Your task to perform on an android device: check android version Image 0: 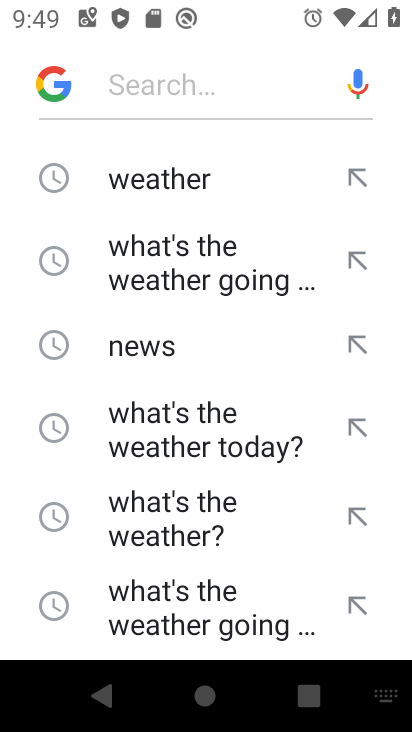
Step 0: press home button
Your task to perform on an android device: check android version Image 1: 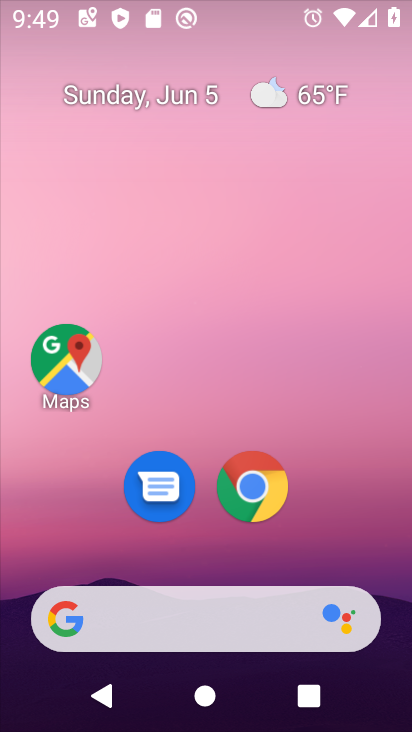
Step 1: drag from (311, 544) to (311, 209)
Your task to perform on an android device: check android version Image 2: 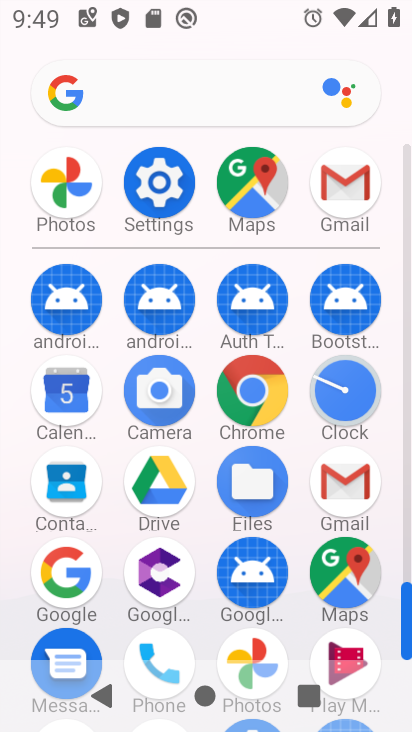
Step 2: click (172, 190)
Your task to perform on an android device: check android version Image 3: 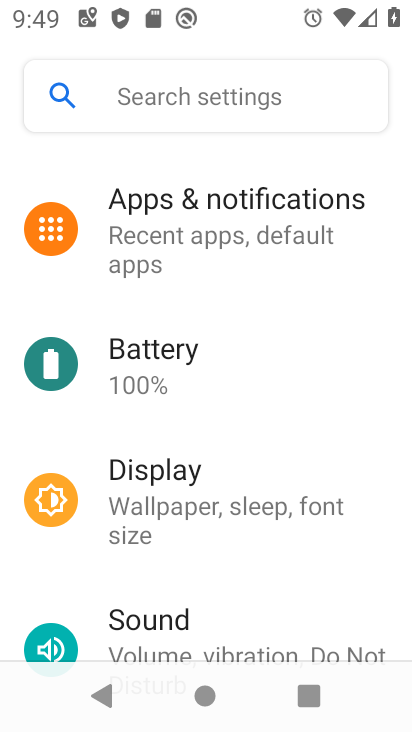
Step 3: drag from (305, 613) to (316, 118)
Your task to perform on an android device: check android version Image 4: 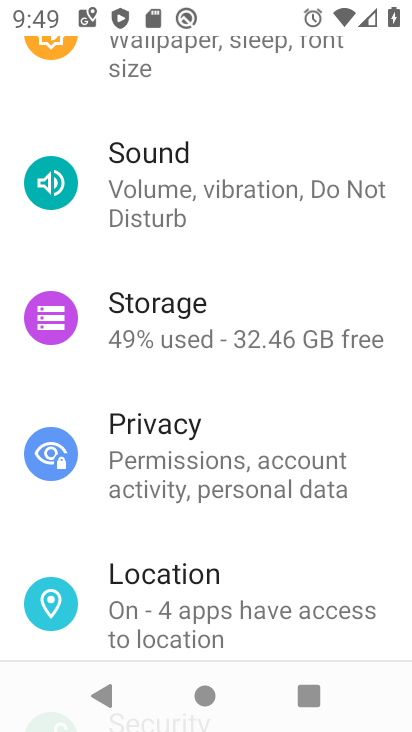
Step 4: drag from (321, 528) to (311, 108)
Your task to perform on an android device: check android version Image 5: 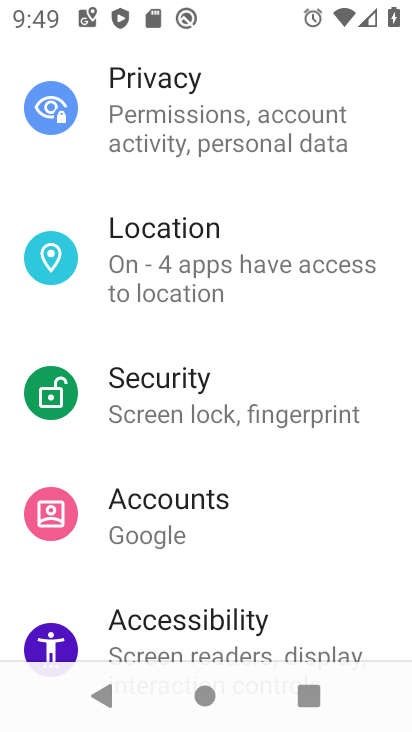
Step 5: drag from (323, 519) to (302, 86)
Your task to perform on an android device: check android version Image 6: 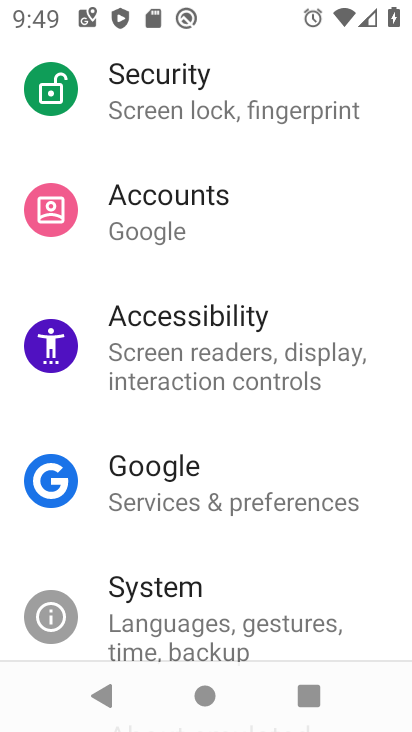
Step 6: drag from (305, 563) to (342, 147)
Your task to perform on an android device: check android version Image 7: 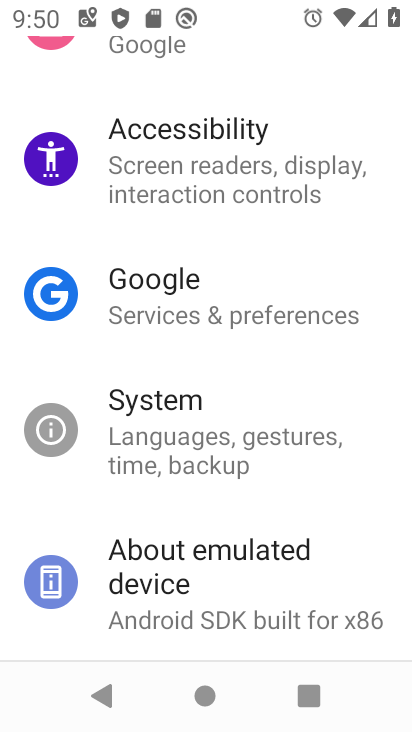
Step 7: click (274, 266)
Your task to perform on an android device: check android version Image 8: 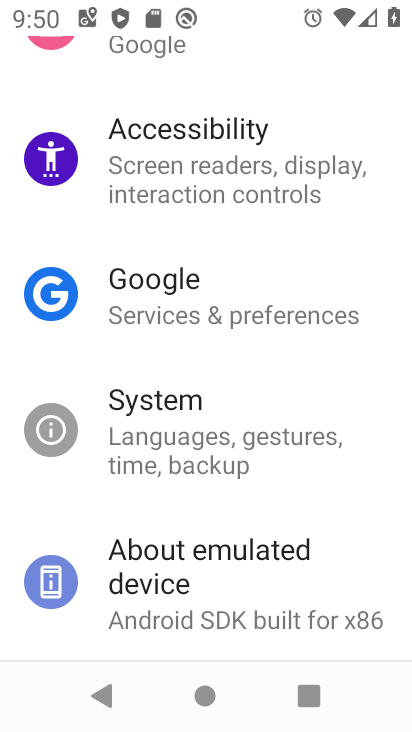
Step 8: click (236, 578)
Your task to perform on an android device: check android version Image 9: 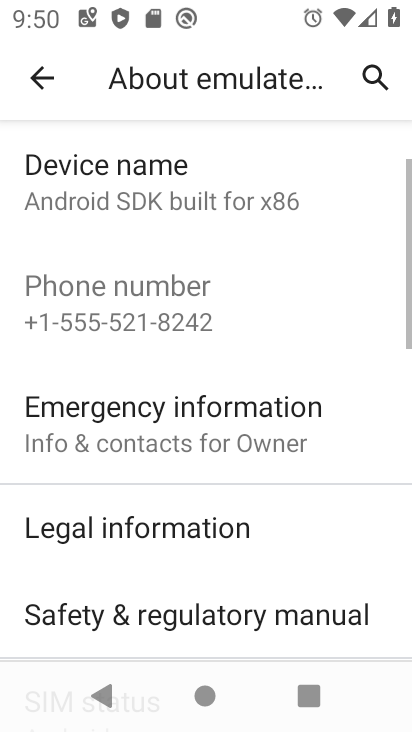
Step 9: drag from (278, 517) to (328, 88)
Your task to perform on an android device: check android version Image 10: 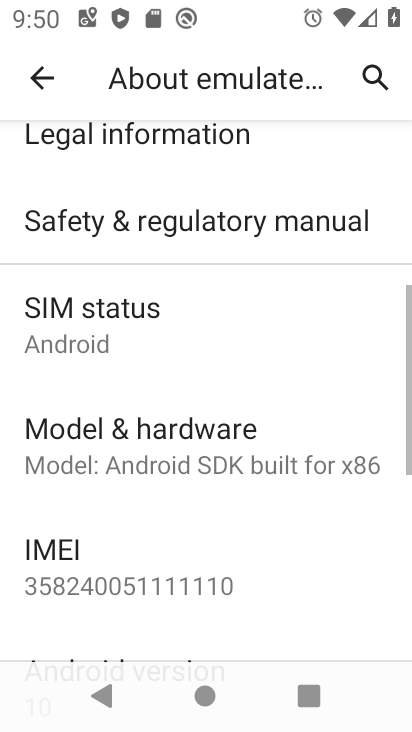
Step 10: drag from (230, 520) to (258, 159)
Your task to perform on an android device: check android version Image 11: 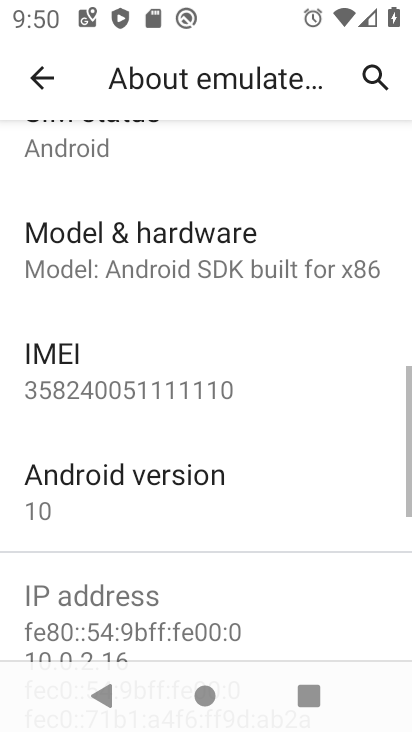
Step 11: click (188, 494)
Your task to perform on an android device: check android version Image 12: 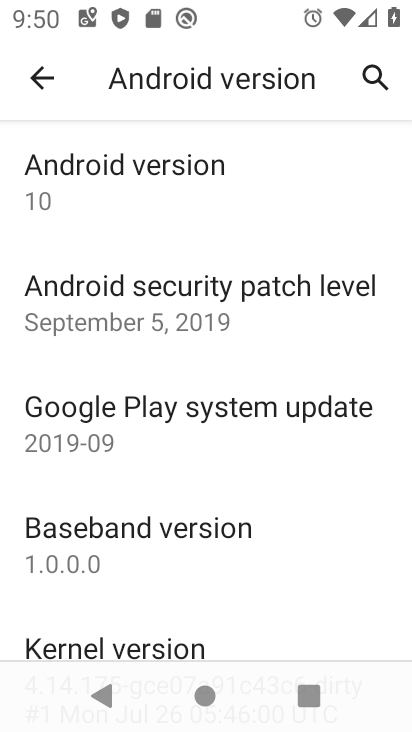
Step 12: task complete